Your task to perform on an android device: Open the calendar and show me this week's events Image 0: 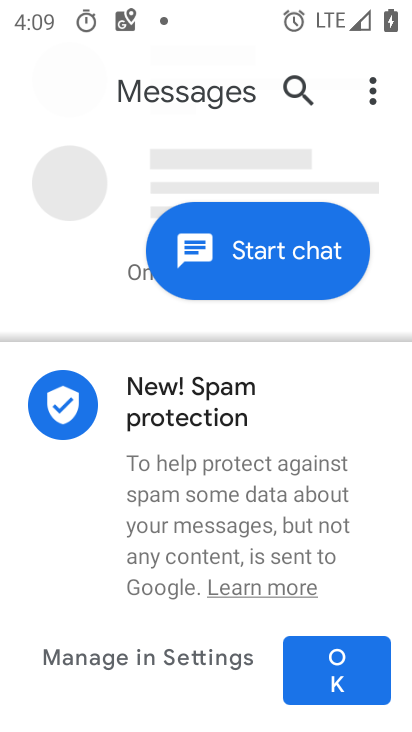
Step 0: press back button
Your task to perform on an android device: Open the calendar and show me this week's events Image 1: 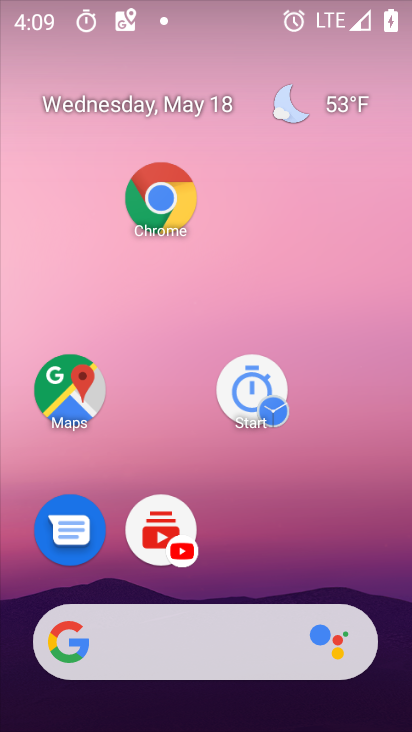
Step 1: drag from (348, 687) to (223, 154)
Your task to perform on an android device: Open the calendar and show me this week's events Image 2: 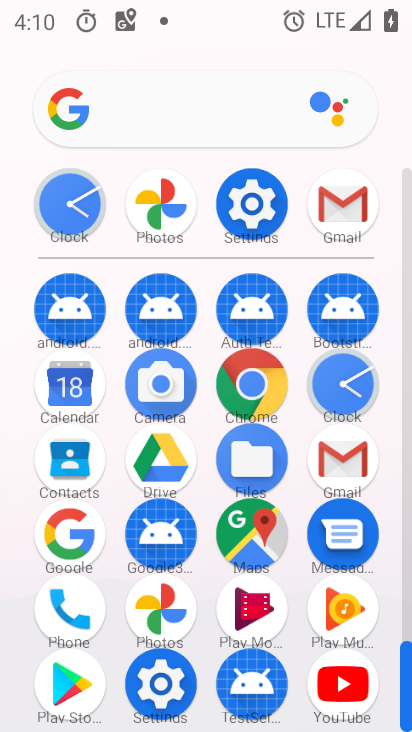
Step 2: press back button
Your task to perform on an android device: Open the calendar and show me this week's events Image 3: 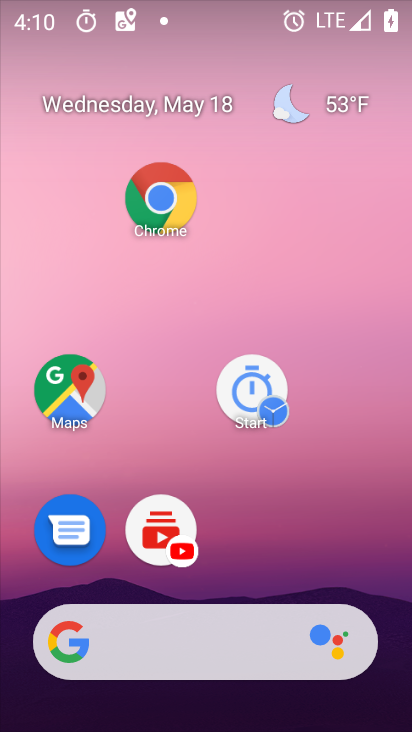
Step 3: drag from (4, 240) to (405, 461)
Your task to perform on an android device: Open the calendar and show me this week's events Image 4: 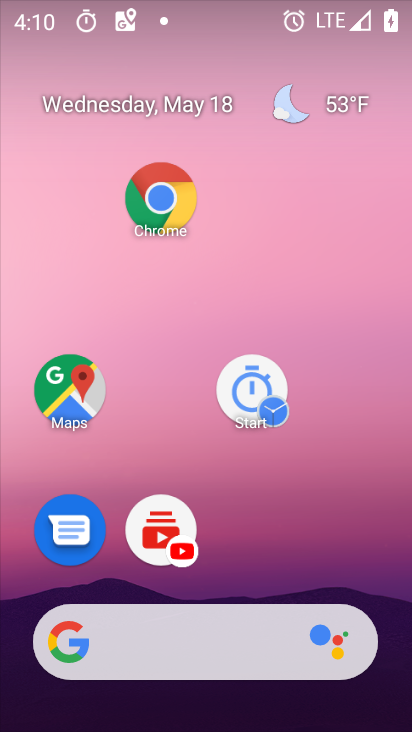
Step 4: drag from (302, 648) to (99, 50)
Your task to perform on an android device: Open the calendar and show me this week's events Image 5: 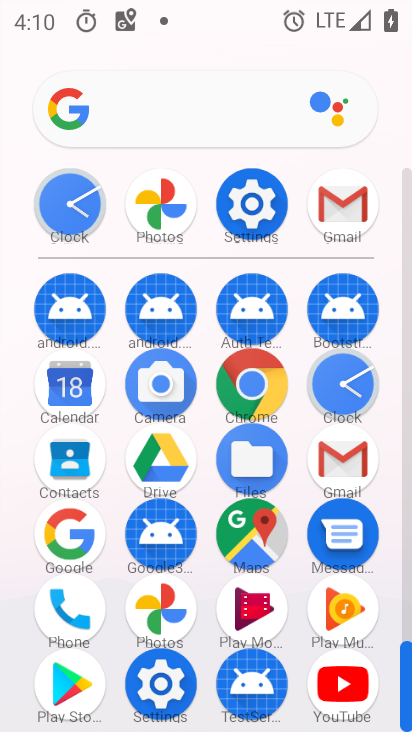
Step 5: click (56, 382)
Your task to perform on an android device: Open the calendar and show me this week's events Image 6: 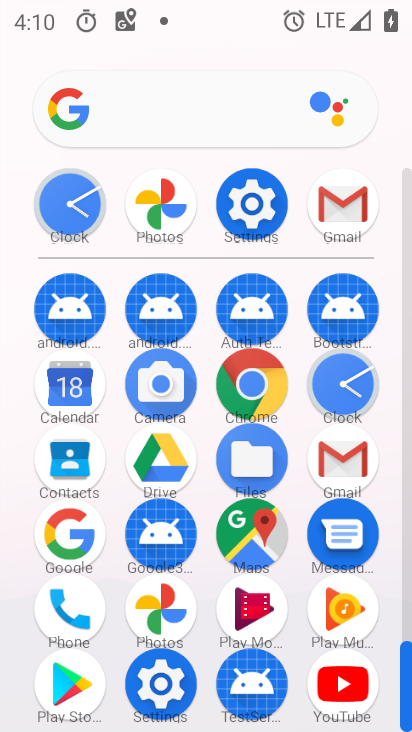
Step 6: click (53, 377)
Your task to perform on an android device: Open the calendar and show me this week's events Image 7: 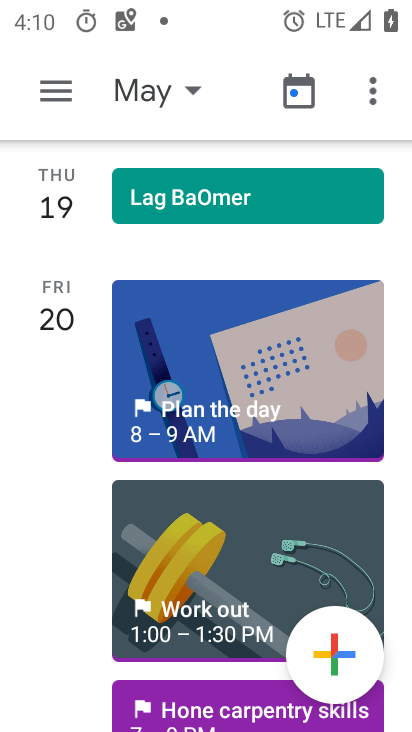
Step 7: click (221, 374)
Your task to perform on an android device: Open the calendar and show me this week's events Image 8: 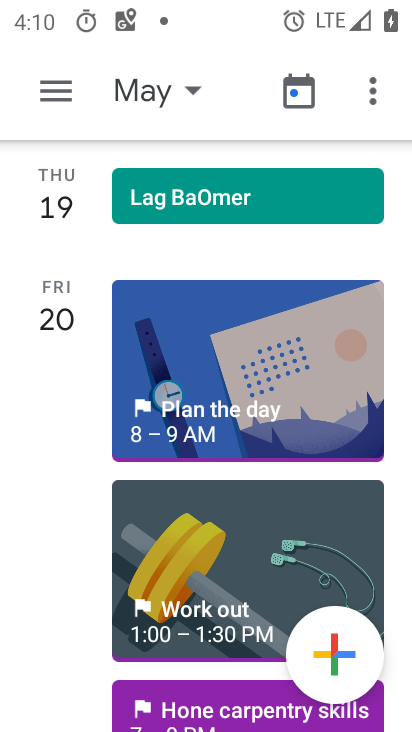
Step 8: click (221, 374)
Your task to perform on an android device: Open the calendar and show me this week's events Image 9: 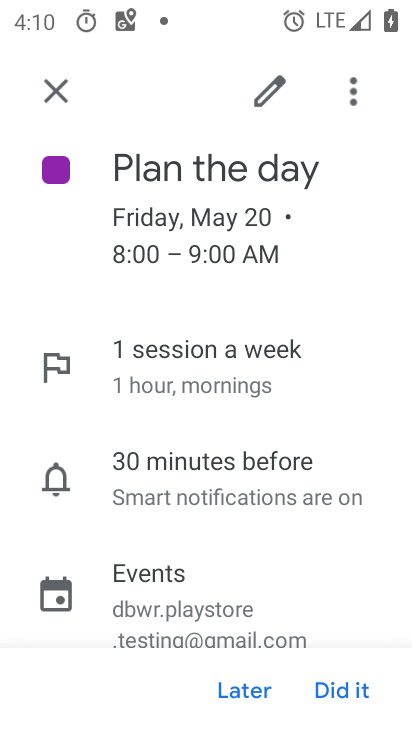
Step 9: task complete